Your task to perform on an android device: turn on the 24-hour format for clock Image 0: 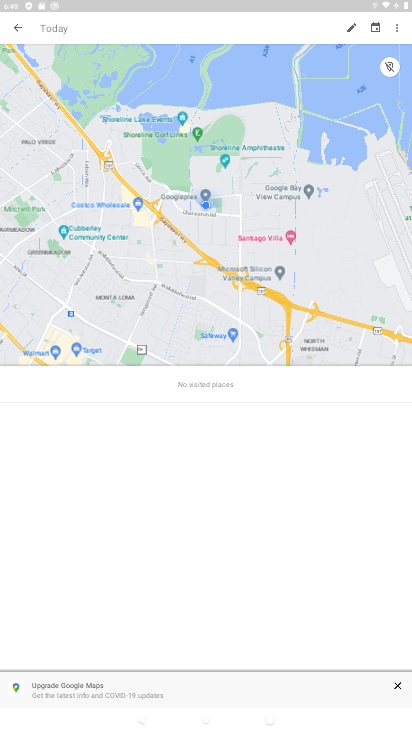
Step 0: press home button
Your task to perform on an android device: turn on the 24-hour format for clock Image 1: 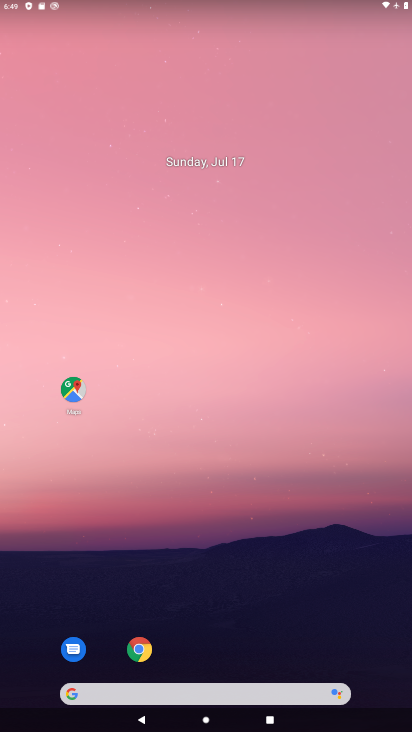
Step 1: drag from (287, 526) to (229, 65)
Your task to perform on an android device: turn on the 24-hour format for clock Image 2: 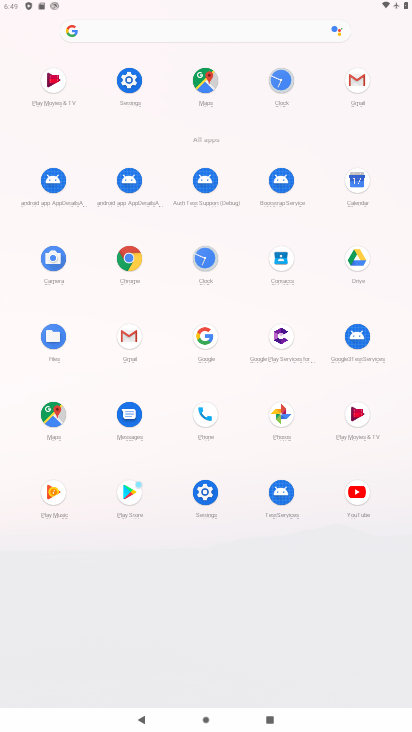
Step 2: click (283, 83)
Your task to perform on an android device: turn on the 24-hour format for clock Image 3: 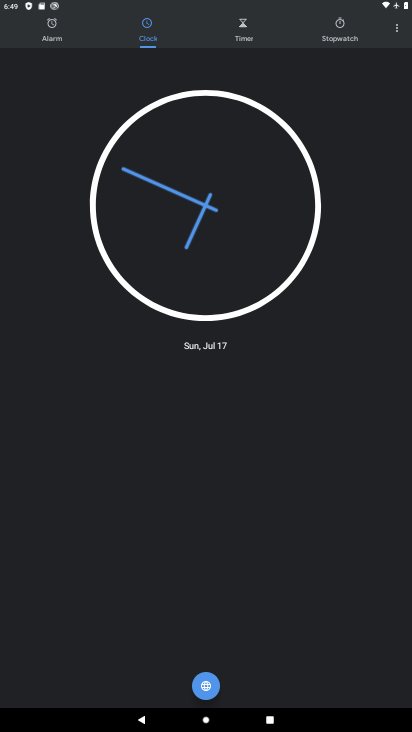
Step 3: click (397, 24)
Your task to perform on an android device: turn on the 24-hour format for clock Image 4: 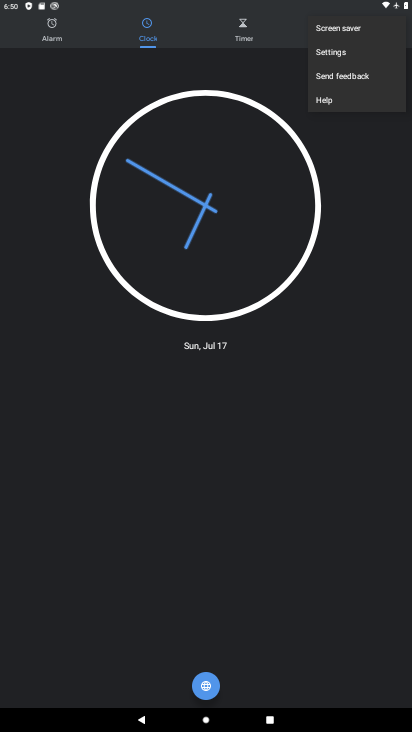
Step 4: click (339, 53)
Your task to perform on an android device: turn on the 24-hour format for clock Image 5: 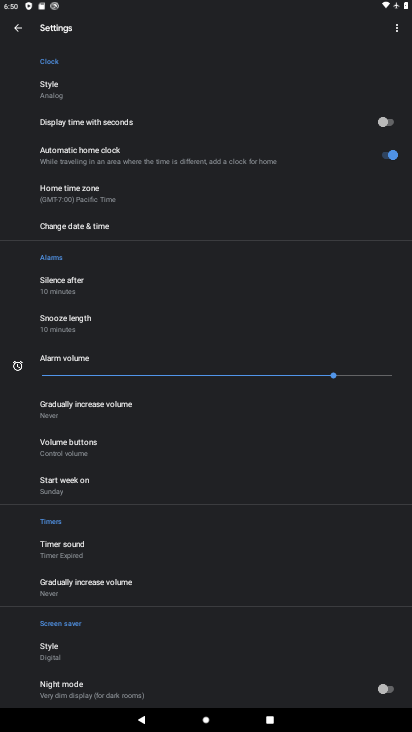
Step 5: click (59, 224)
Your task to perform on an android device: turn on the 24-hour format for clock Image 6: 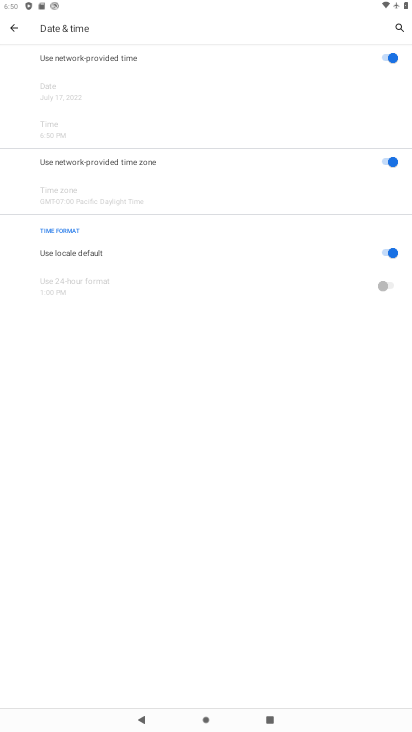
Step 6: click (385, 281)
Your task to perform on an android device: turn on the 24-hour format for clock Image 7: 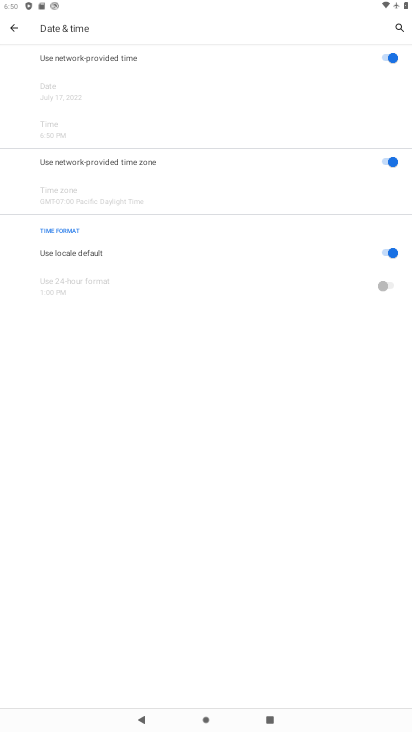
Step 7: click (391, 253)
Your task to perform on an android device: turn on the 24-hour format for clock Image 8: 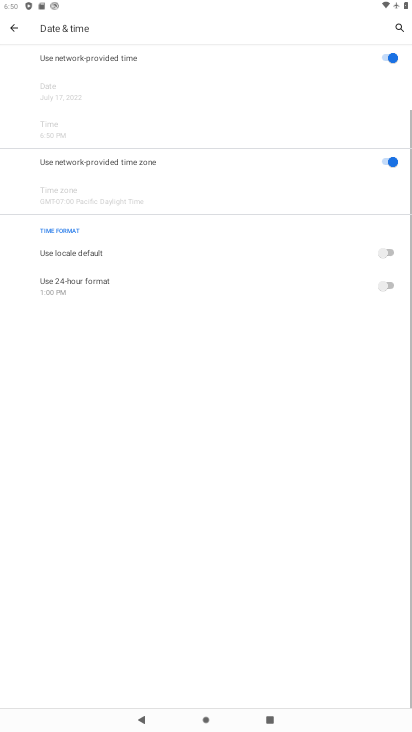
Step 8: click (381, 286)
Your task to perform on an android device: turn on the 24-hour format for clock Image 9: 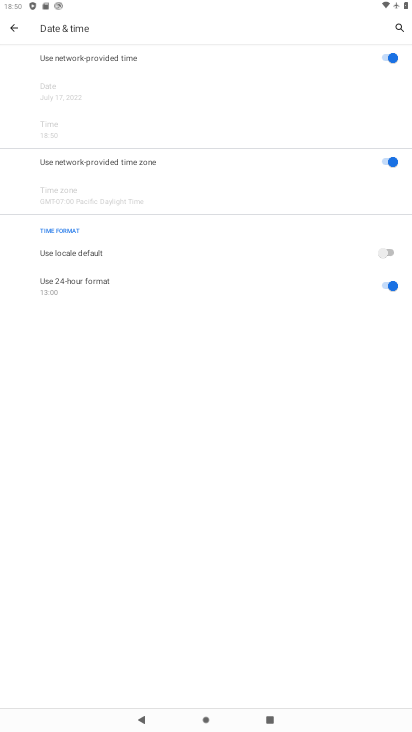
Step 9: task complete